Your task to perform on an android device: toggle data saver in the chrome app Image 0: 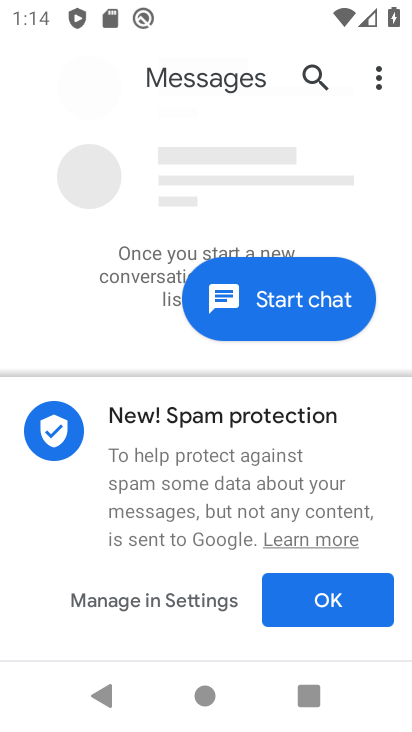
Step 0: press home button
Your task to perform on an android device: toggle data saver in the chrome app Image 1: 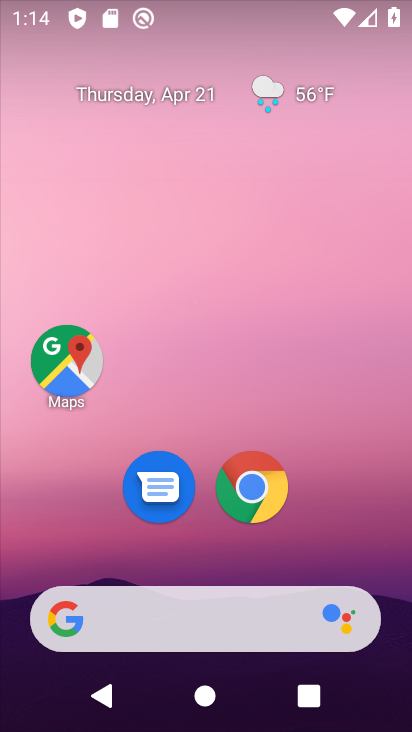
Step 1: click (249, 480)
Your task to perform on an android device: toggle data saver in the chrome app Image 2: 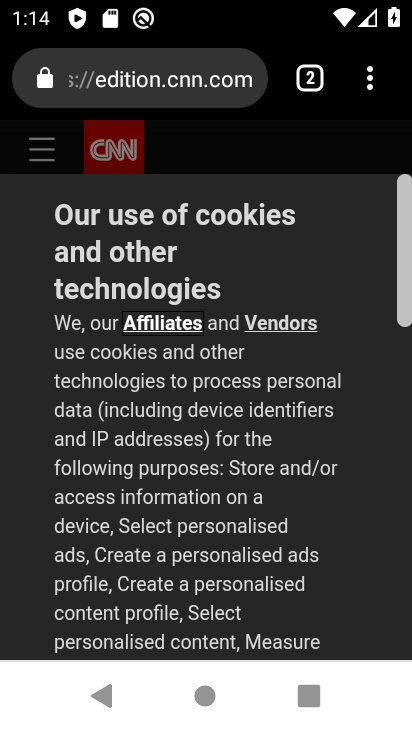
Step 2: drag from (368, 82) to (93, 539)
Your task to perform on an android device: toggle data saver in the chrome app Image 3: 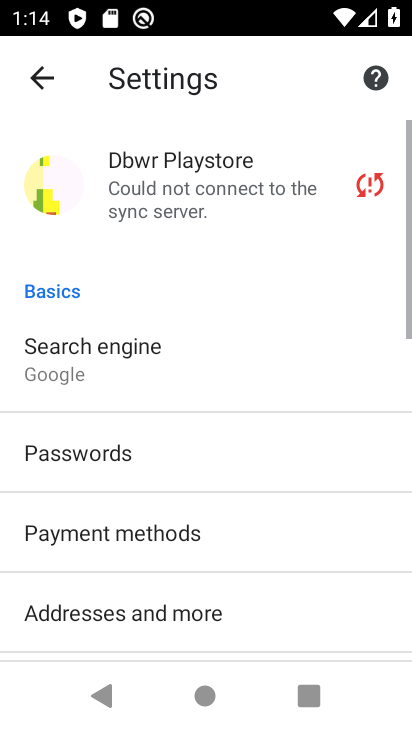
Step 3: drag from (171, 553) to (160, 158)
Your task to perform on an android device: toggle data saver in the chrome app Image 4: 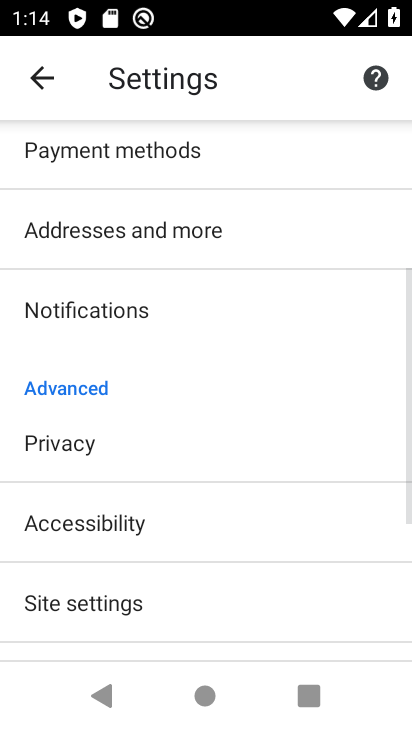
Step 4: drag from (159, 524) to (143, 142)
Your task to perform on an android device: toggle data saver in the chrome app Image 5: 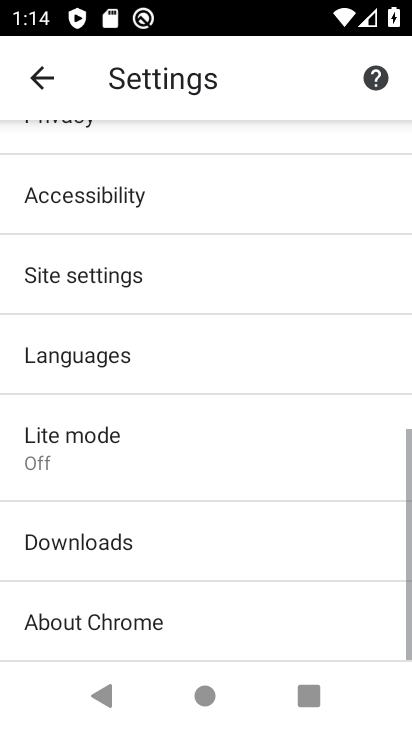
Step 5: drag from (119, 518) to (149, 185)
Your task to perform on an android device: toggle data saver in the chrome app Image 6: 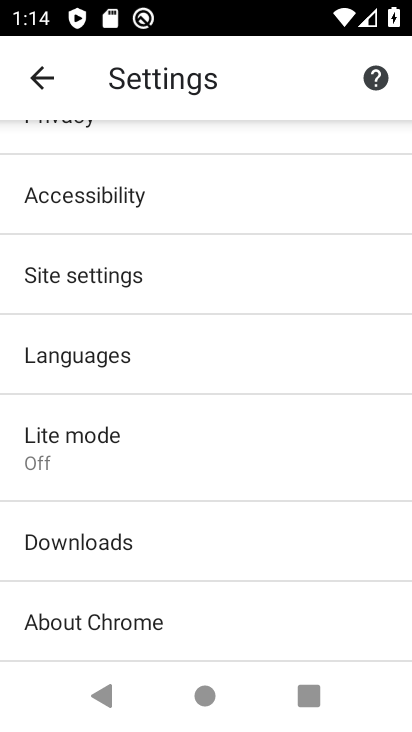
Step 6: click (79, 439)
Your task to perform on an android device: toggle data saver in the chrome app Image 7: 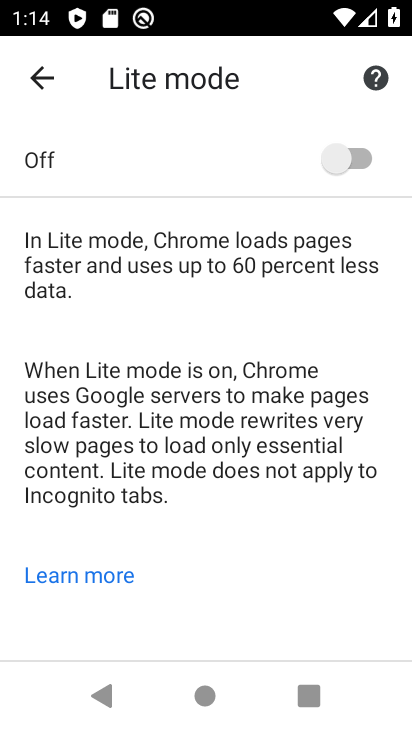
Step 7: click (333, 156)
Your task to perform on an android device: toggle data saver in the chrome app Image 8: 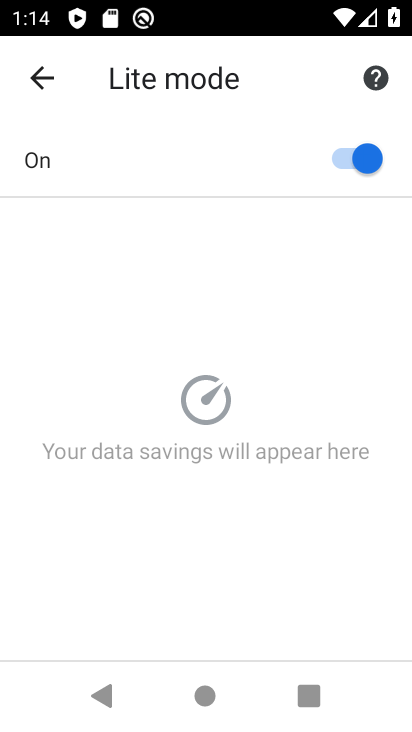
Step 8: task complete